Your task to perform on an android device: set the stopwatch Image 0: 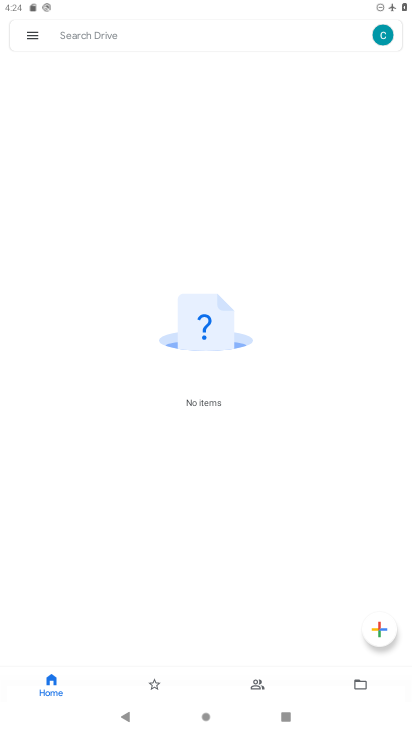
Step 0: press home button
Your task to perform on an android device: set the stopwatch Image 1: 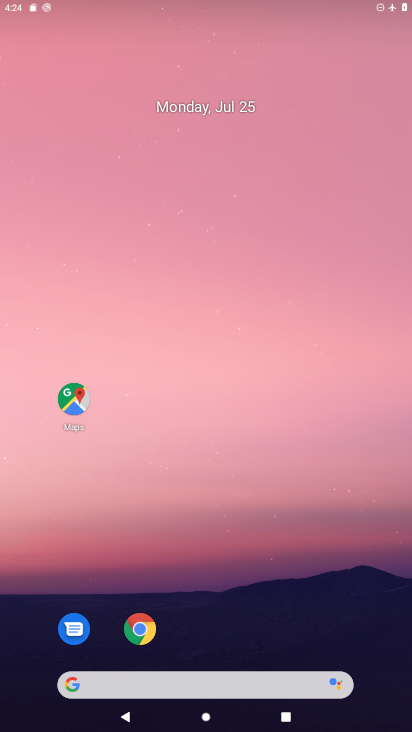
Step 1: drag from (297, 640) to (329, 31)
Your task to perform on an android device: set the stopwatch Image 2: 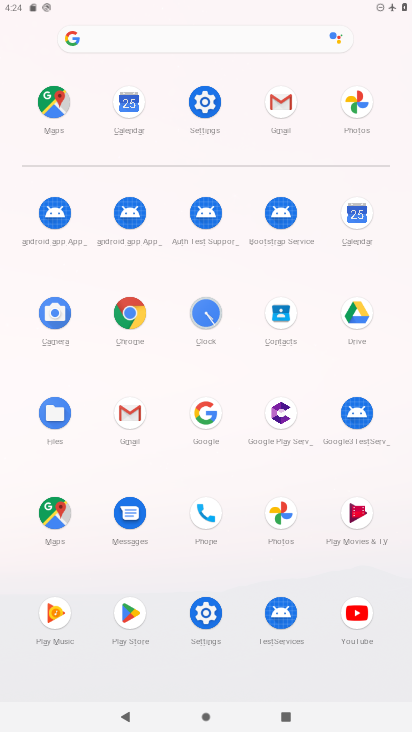
Step 2: click (206, 314)
Your task to perform on an android device: set the stopwatch Image 3: 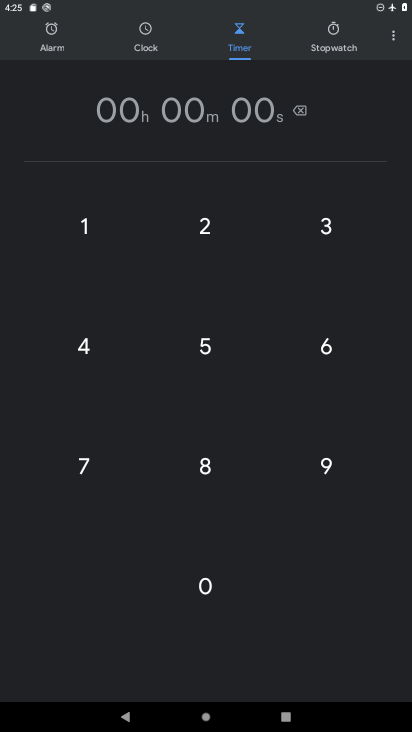
Step 3: click (349, 32)
Your task to perform on an android device: set the stopwatch Image 4: 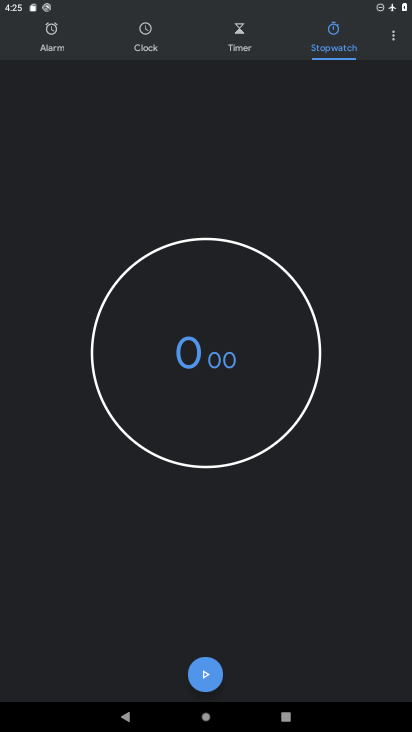
Step 4: click (209, 683)
Your task to perform on an android device: set the stopwatch Image 5: 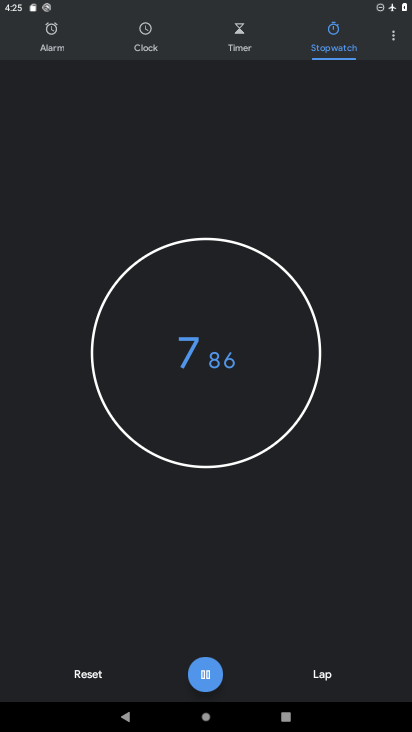
Step 5: task complete